Your task to perform on an android device: Search for "bose soundsport free" on costco.com, select the first entry, add it to the cart, then select checkout. Image 0: 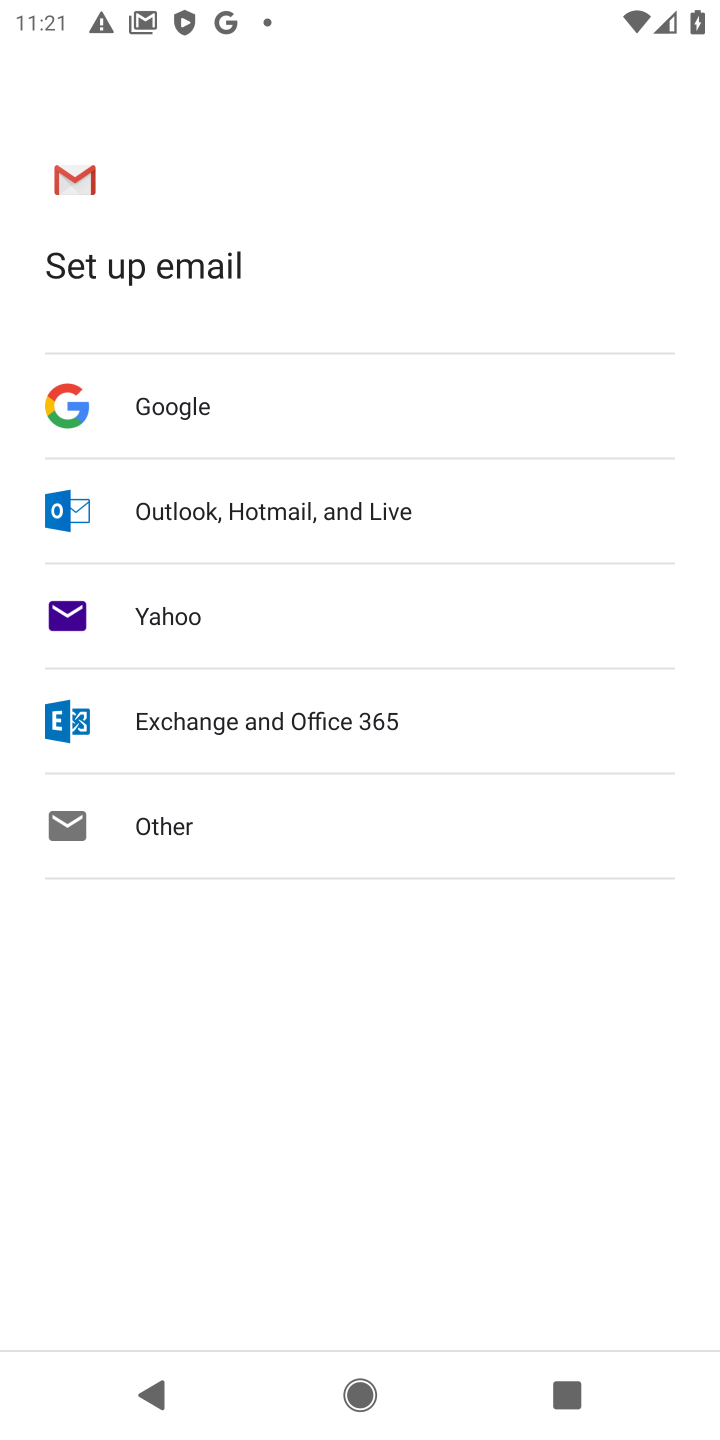
Step 0: press home button
Your task to perform on an android device: Search for "bose soundsport free" on costco.com, select the first entry, add it to the cart, then select checkout. Image 1: 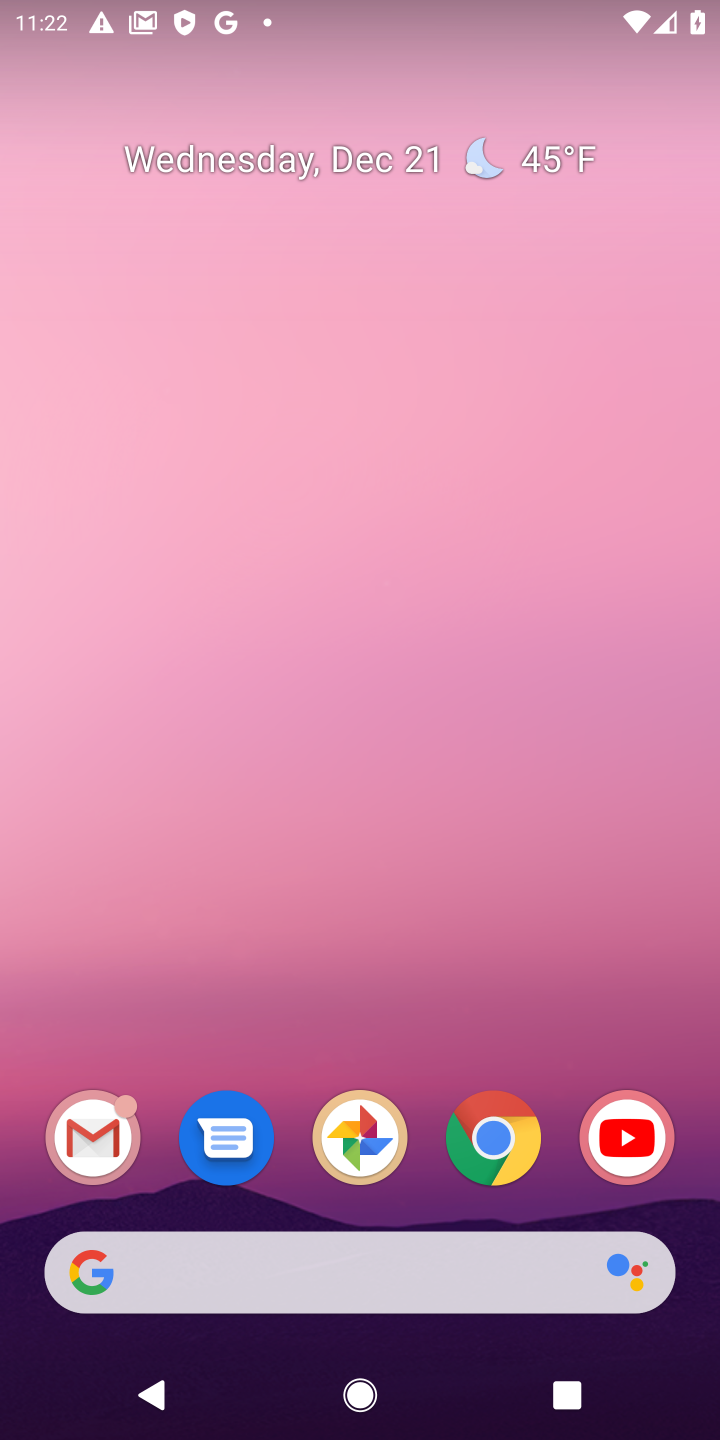
Step 1: click (488, 1147)
Your task to perform on an android device: Search for "bose soundsport free" on costco.com, select the first entry, add it to the cart, then select checkout. Image 2: 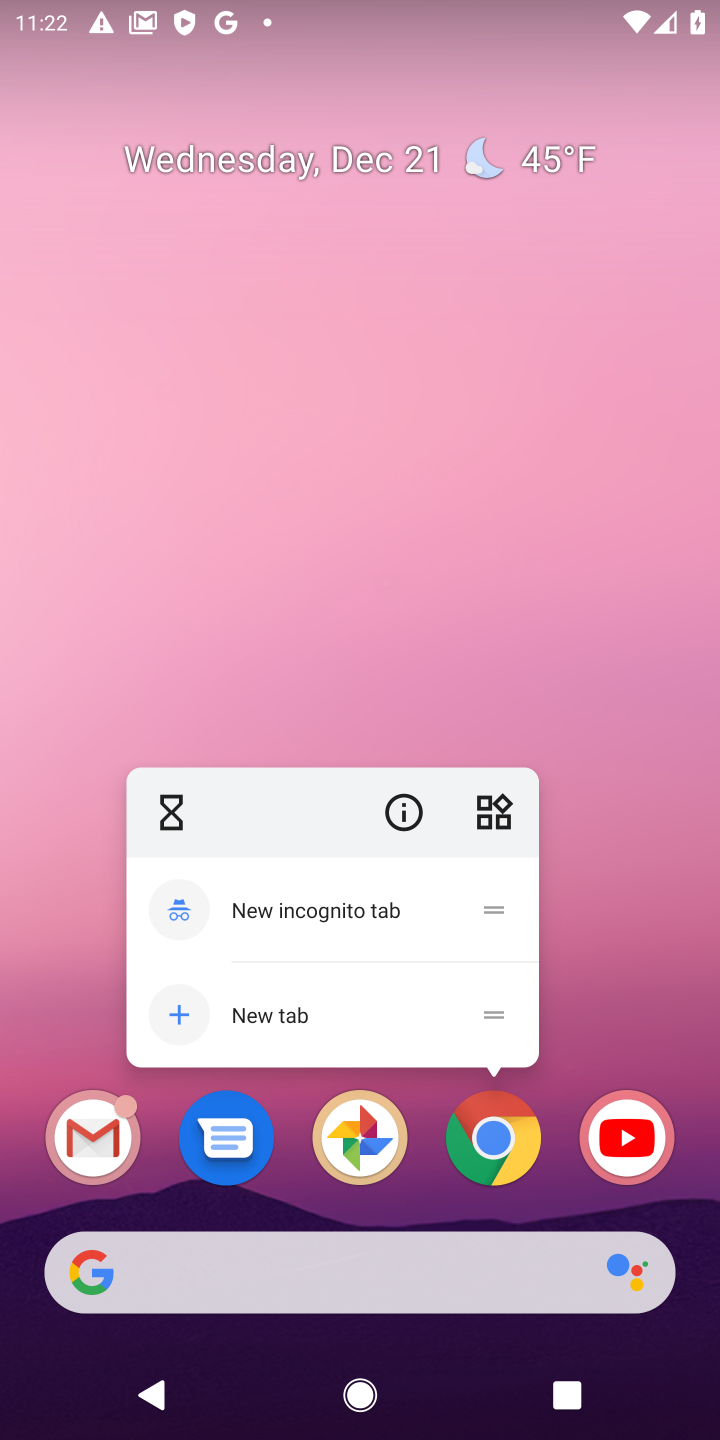
Step 2: click (488, 1147)
Your task to perform on an android device: Search for "bose soundsport free" on costco.com, select the first entry, add it to the cart, then select checkout. Image 3: 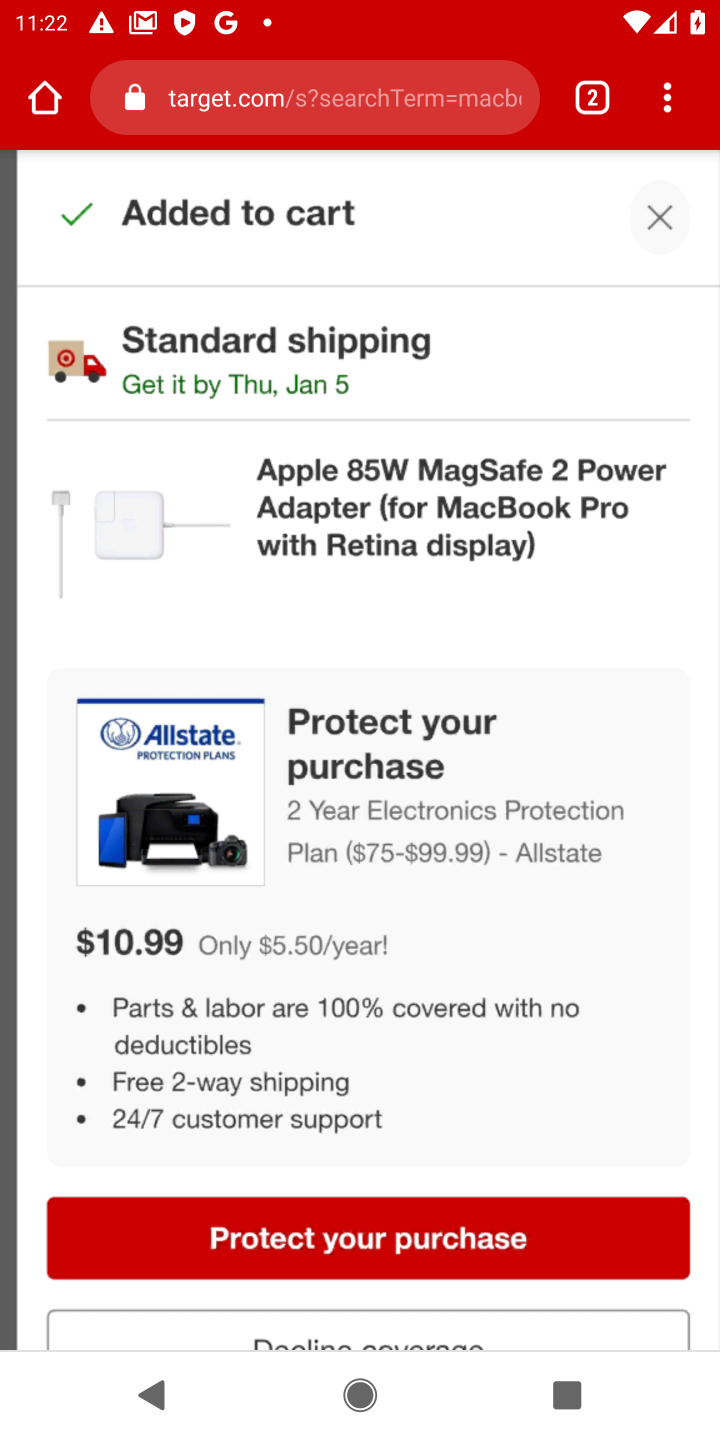
Step 3: click (252, 89)
Your task to perform on an android device: Search for "bose soundsport free" on costco.com, select the first entry, add it to the cart, then select checkout. Image 4: 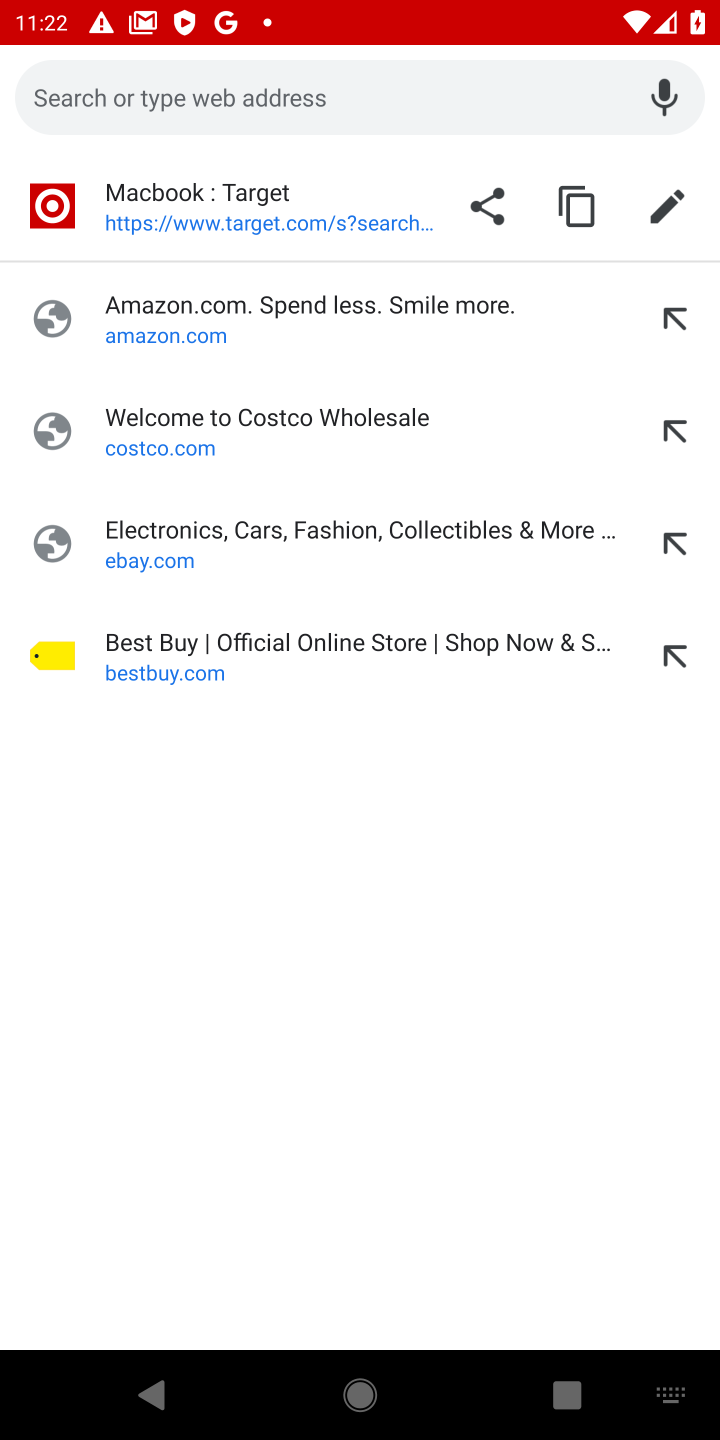
Step 4: click (157, 436)
Your task to perform on an android device: Search for "bose soundsport free" on costco.com, select the first entry, add it to the cart, then select checkout. Image 5: 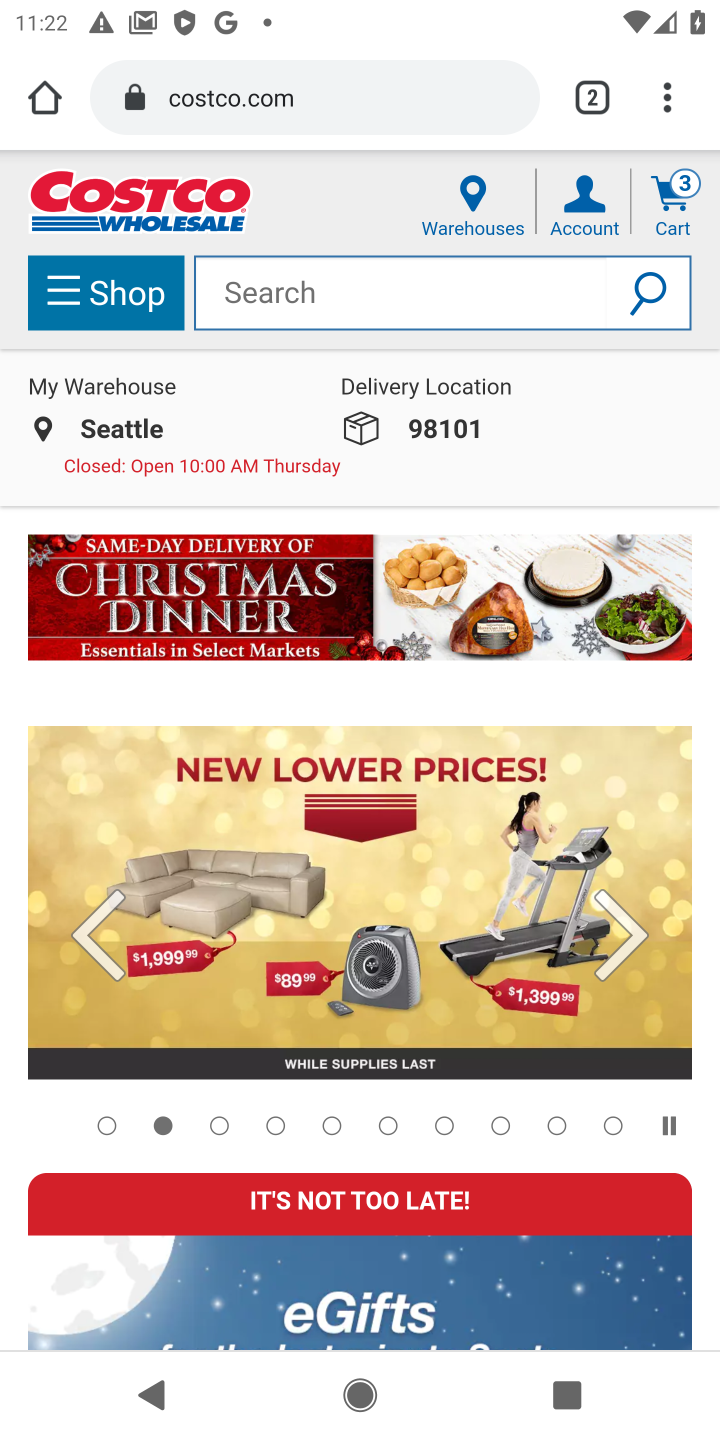
Step 5: click (279, 302)
Your task to perform on an android device: Search for "bose soundsport free" on costco.com, select the first entry, add it to the cart, then select checkout. Image 6: 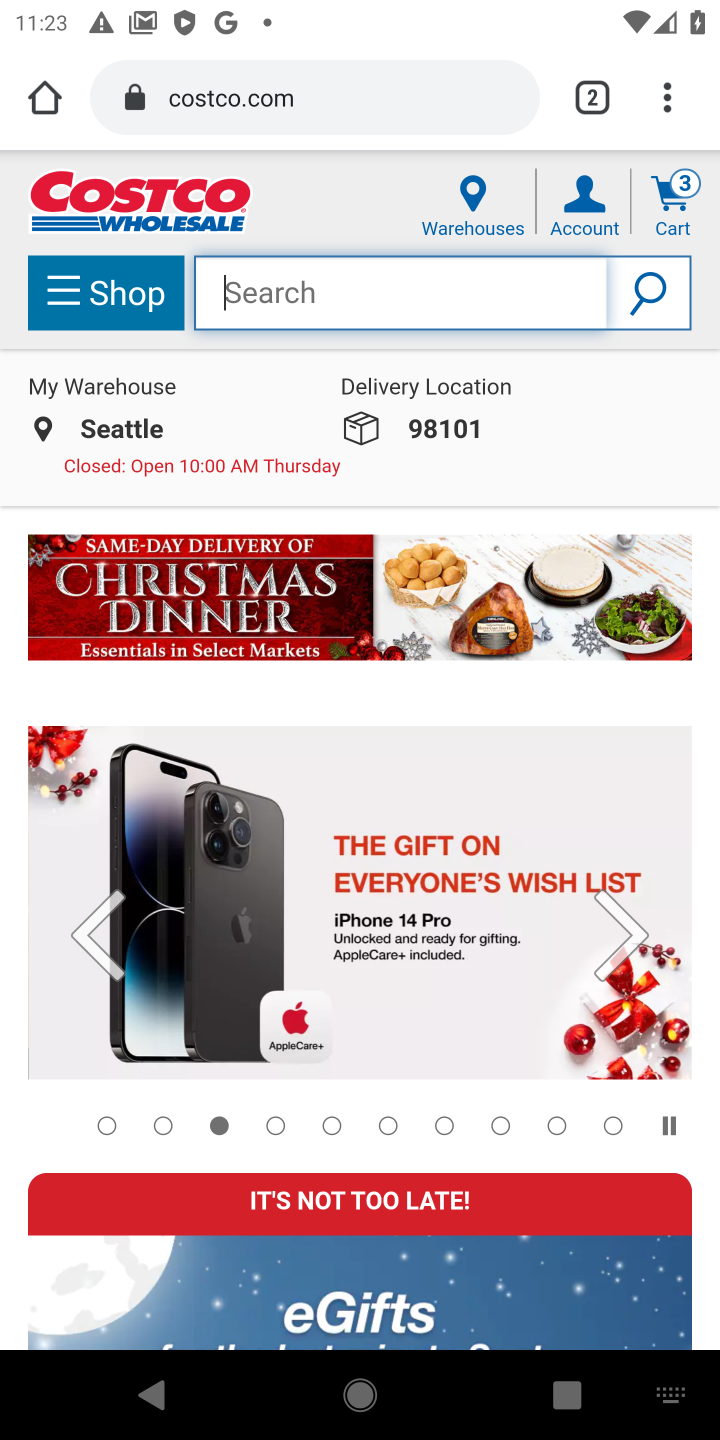
Step 6: type "bose soundsport free"
Your task to perform on an android device: Search for "bose soundsport free" on costco.com, select the first entry, add it to the cart, then select checkout. Image 7: 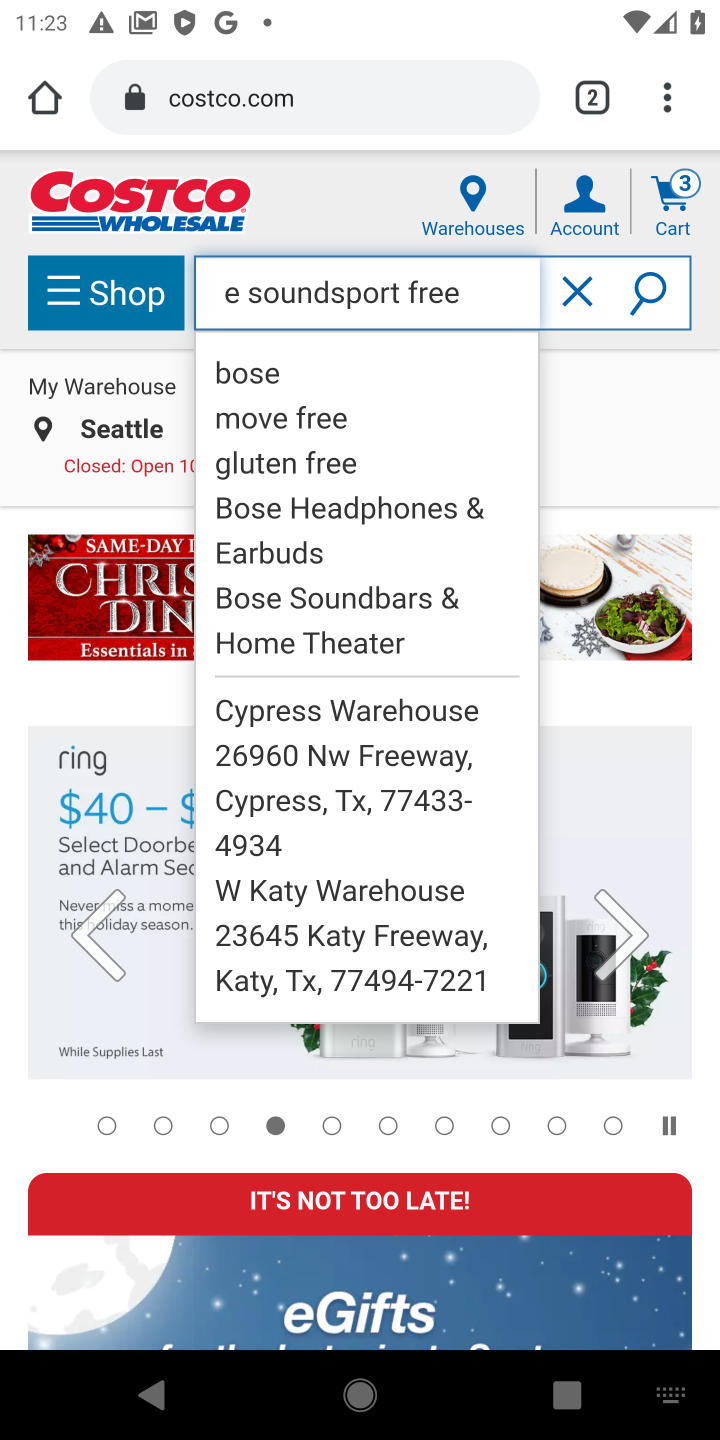
Step 7: click (643, 308)
Your task to perform on an android device: Search for "bose soundsport free" on costco.com, select the first entry, add it to the cart, then select checkout. Image 8: 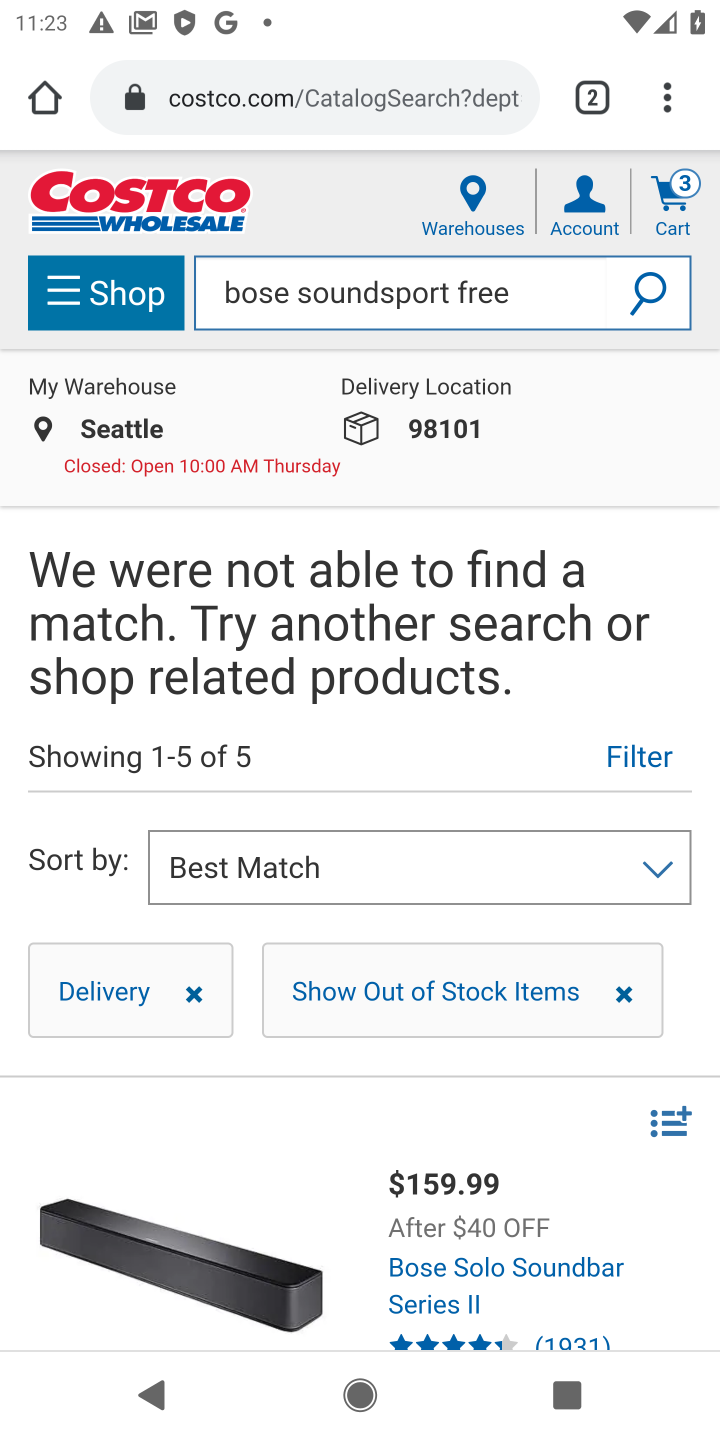
Step 8: task complete